Your task to perform on an android device: Open Google Chrome Image 0: 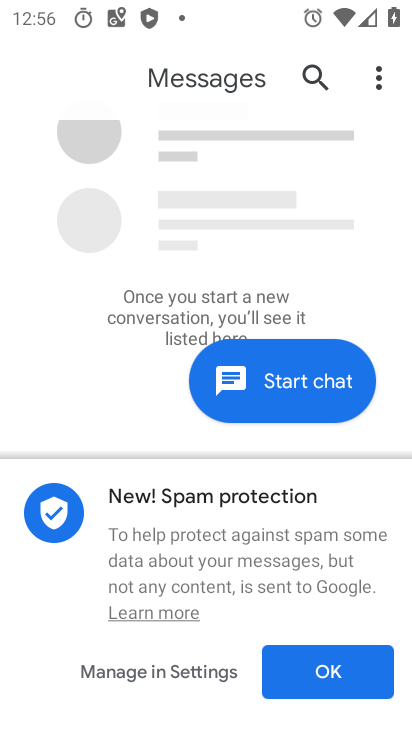
Step 0: press home button
Your task to perform on an android device: Open Google Chrome Image 1: 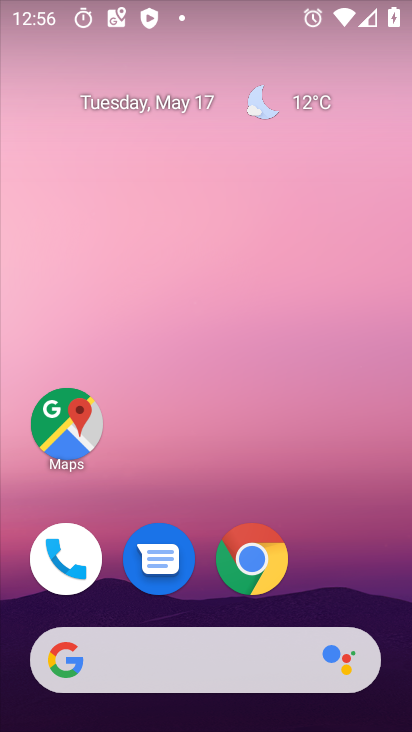
Step 1: click (356, 558)
Your task to perform on an android device: Open Google Chrome Image 2: 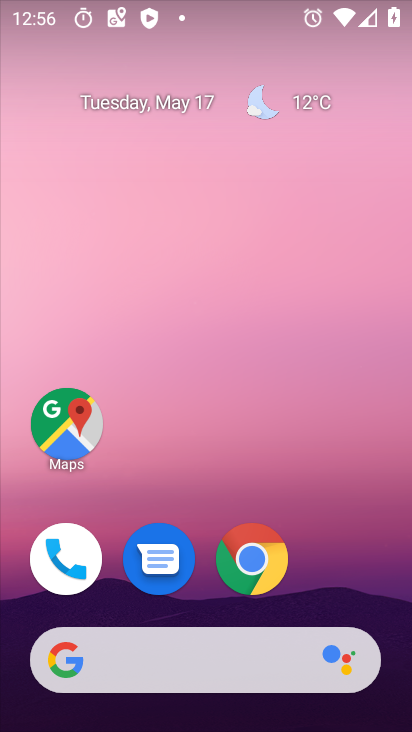
Step 2: click (275, 568)
Your task to perform on an android device: Open Google Chrome Image 3: 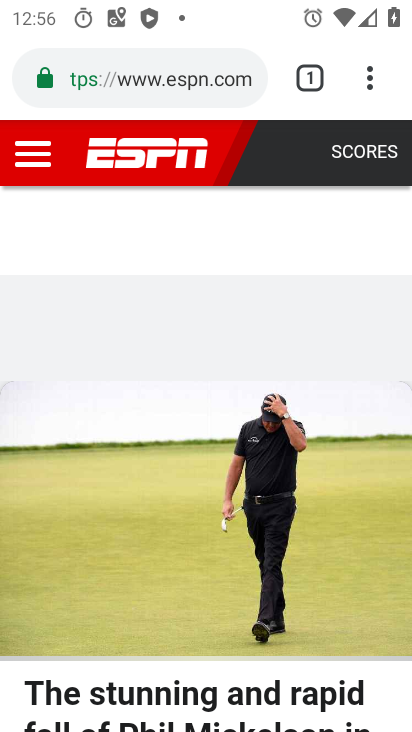
Step 3: task complete